Your task to perform on an android device: Empty the shopping cart on amazon.com. Search for "logitech g933" on amazon.com, select the first entry, add it to the cart, then select checkout. Image 0: 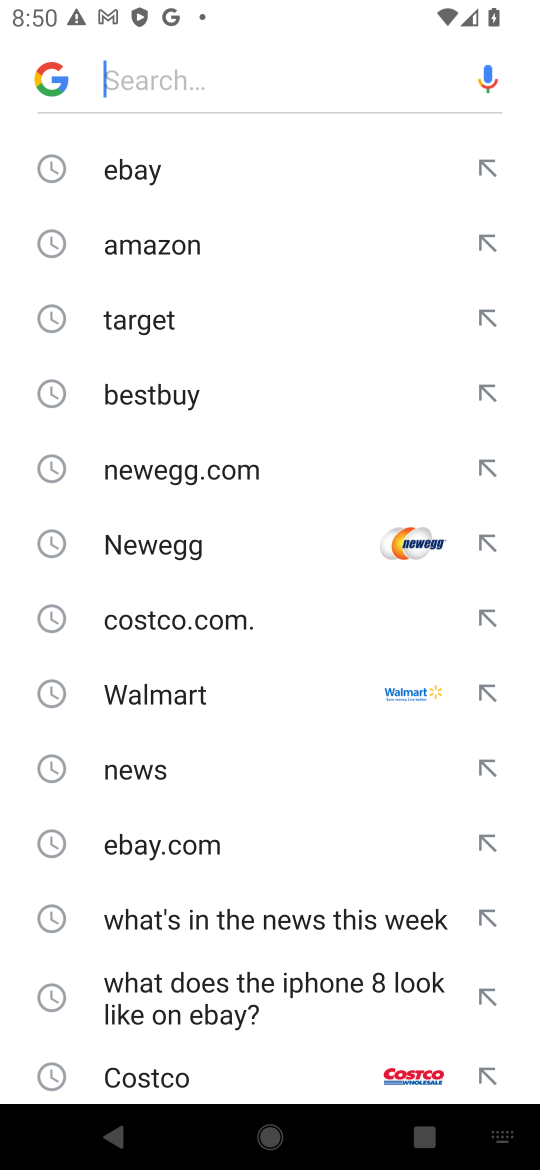
Step 0: type "amazon.com"
Your task to perform on an android device: Empty the shopping cart on amazon.com. Search for "logitech g933" on amazon.com, select the first entry, add it to the cart, then select checkout. Image 1: 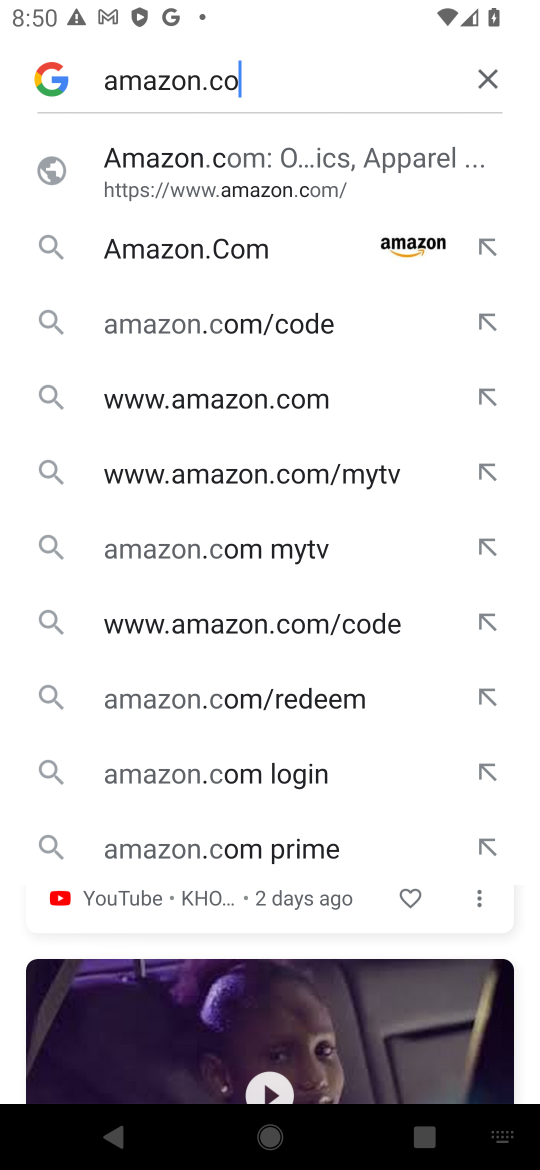
Step 1: type ""
Your task to perform on an android device: Empty the shopping cart on amazon.com. Search for "logitech g933" on amazon.com, select the first entry, add it to the cart, then select checkout. Image 2: 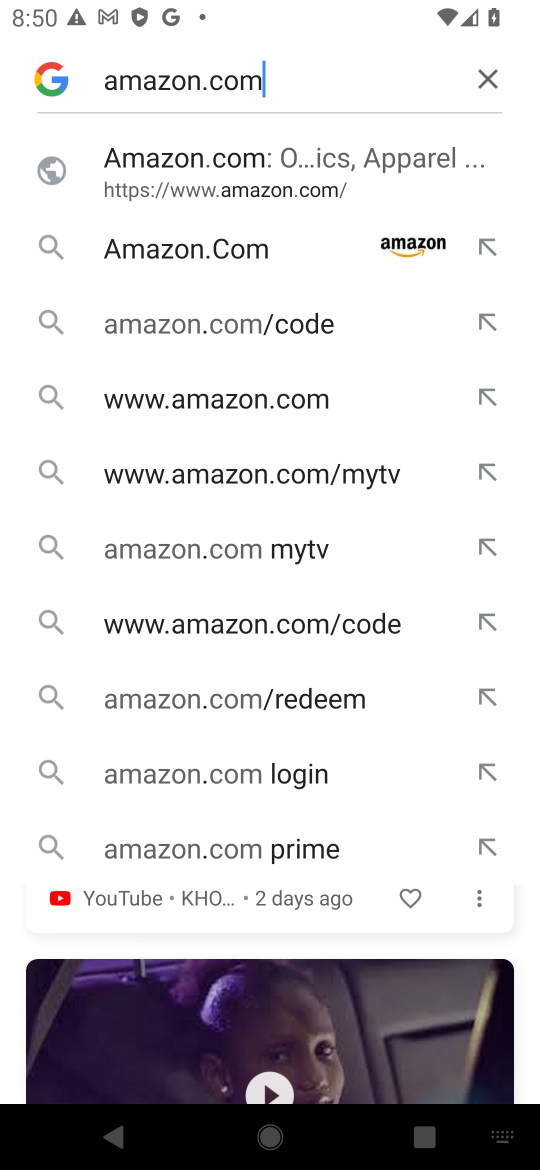
Step 2: click (238, 257)
Your task to perform on an android device: Empty the shopping cart on amazon.com. Search for "logitech g933" on amazon.com, select the first entry, add it to the cart, then select checkout. Image 3: 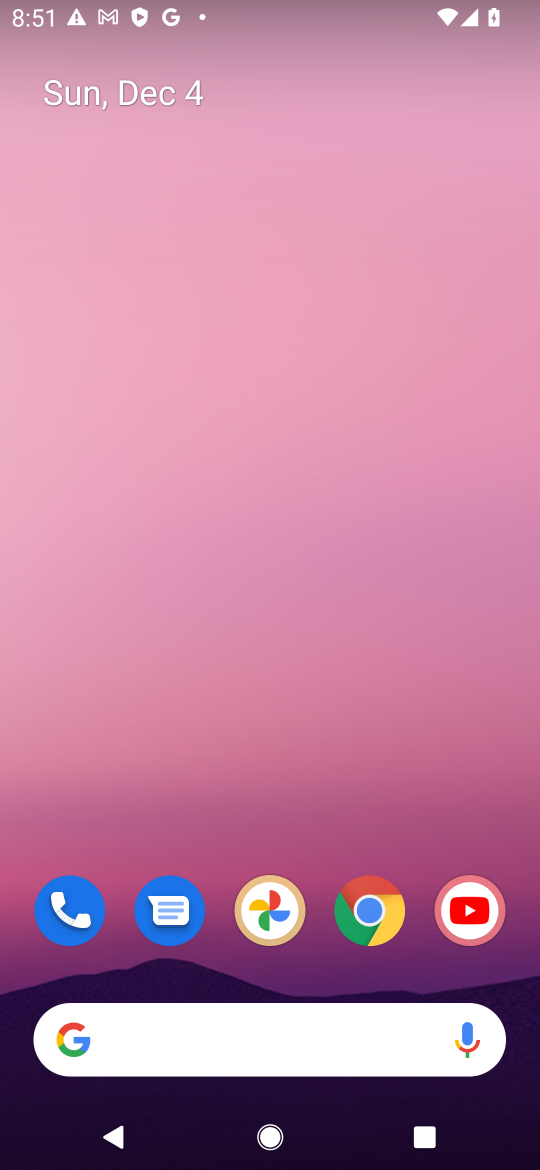
Step 3: drag from (333, 1092) to (260, 36)
Your task to perform on an android device: Empty the shopping cart on amazon.com. Search for "logitech g933" on amazon.com, select the first entry, add it to the cart, then select checkout. Image 4: 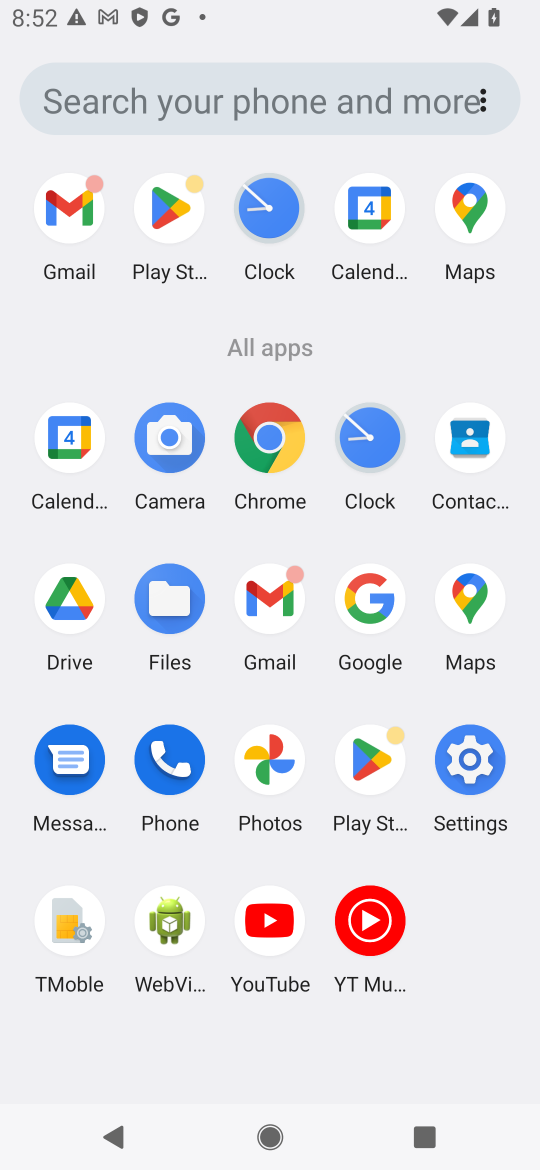
Step 4: click (278, 436)
Your task to perform on an android device: Empty the shopping cart on amazon.com. Search for "logitech g933" on amazon.com, select the first entry, add it to the cart, then select checkout. Image 5: 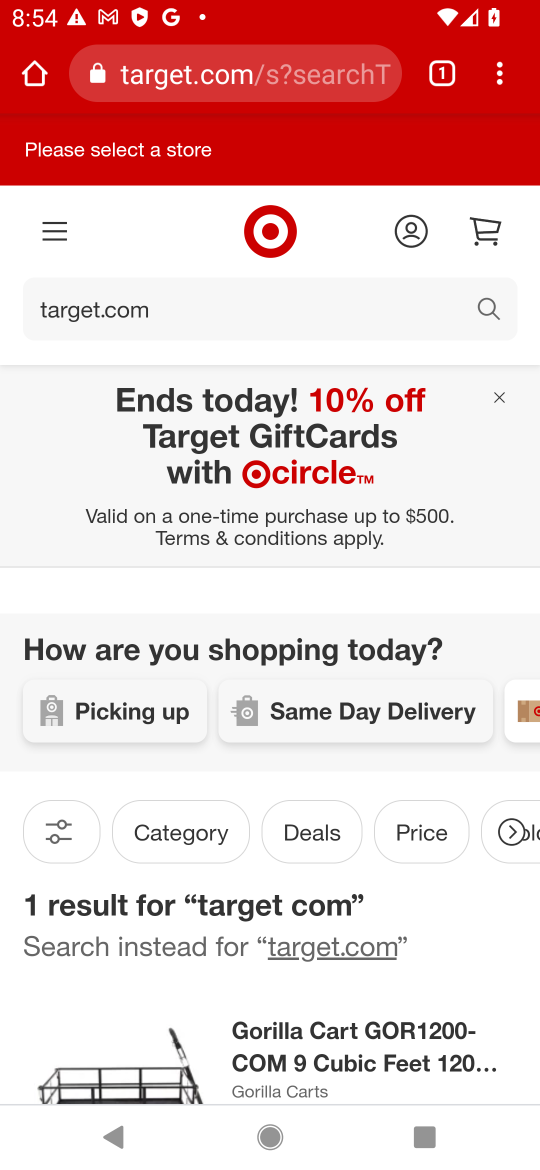
Step 5: click (484, 223)
Your task to perform on an android device: Empty the shopping cart on amazon.com. Search for "logitech g933" on amazon.com, select the first entry, add it to the cart, then select checkout. Image 6: 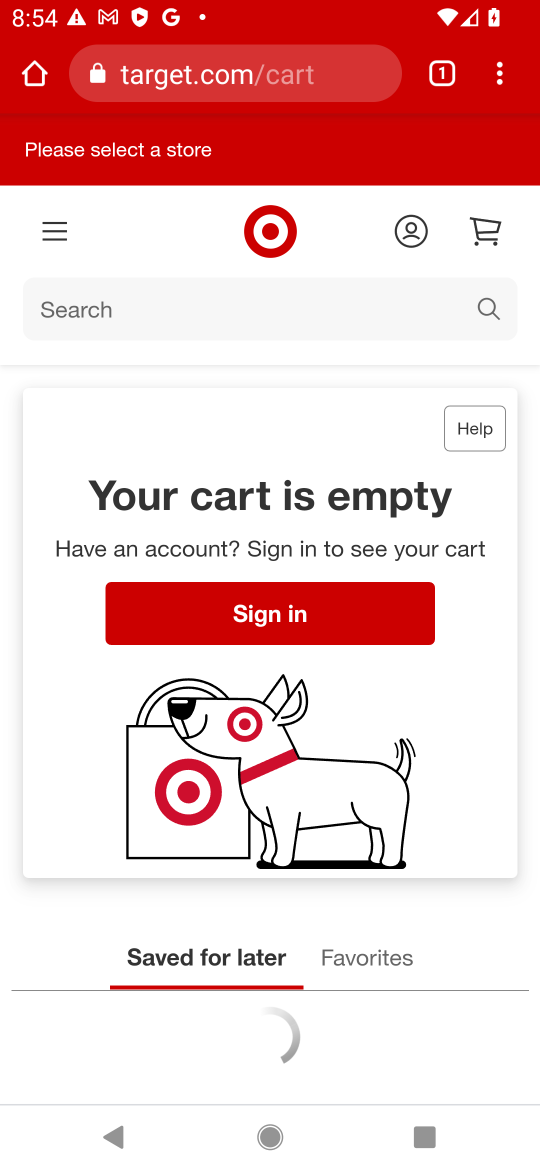
Step 6: click (422, 308)
Your task to perform on an android device: Empty the shopping cart on amazon.com. Search for "logitech g933" on amazon.com, select the first entry, add it to the cart, then select checkout. Image 7: 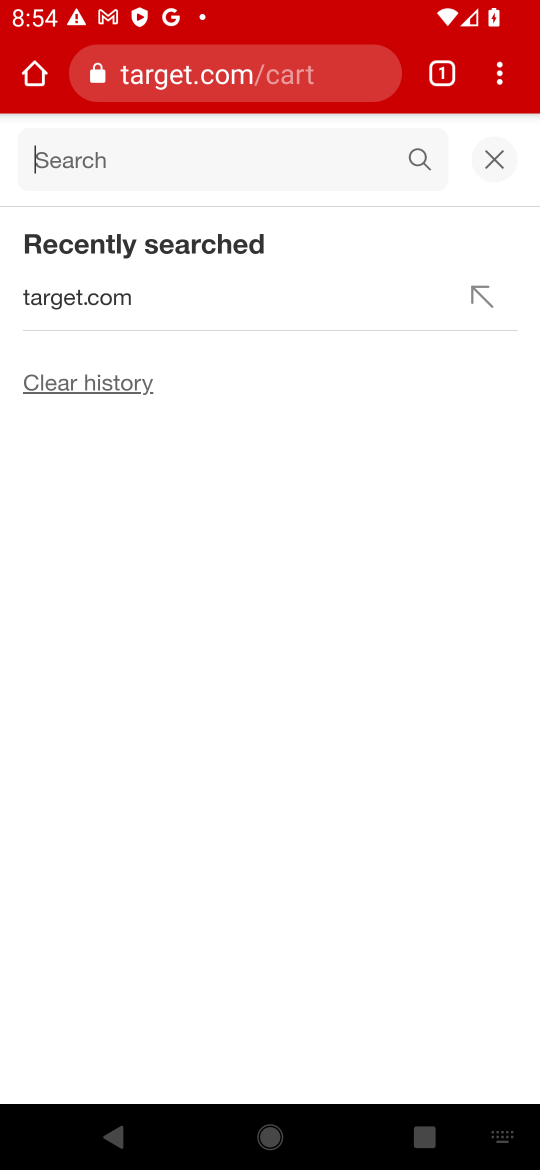
Step 7: type "logitech g933""
Your task to perform on an android device: Empty the shopping cart on amazon.com. Search for "logitech g933" on amazon.com, select the first entry, add it to the cart, then select checkout. Image 8: 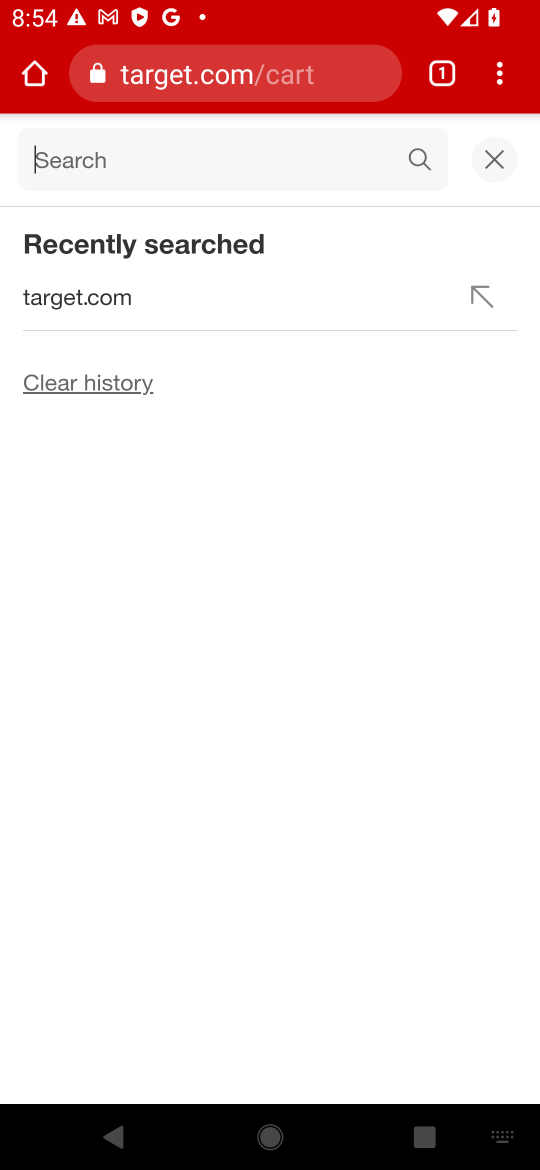
Step 8: type ""
Your task to perform on an android device: Empty the shopping cart on amazon.com. Search for "logitech g933" on amazon.com, select the first entry, add it to the cart, then select checkout. Image 9: 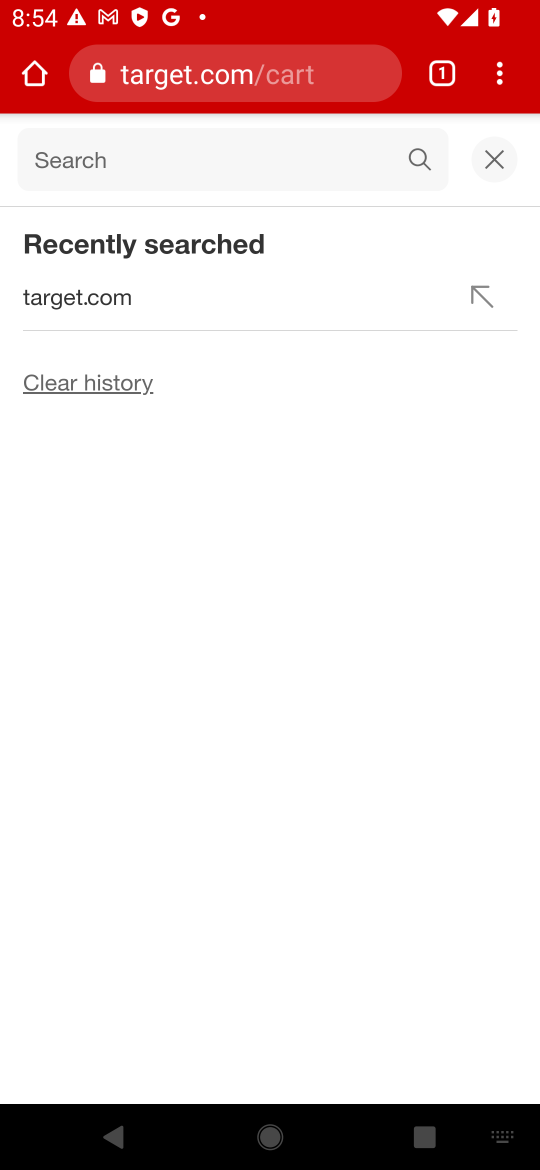
Step 9: click (171, 150)
Your task to perform on an android device: Empty the shopping cart on amazon.com. Search for "logitech g933" on amazon.com, select the first entry, add it to the cart, then select checkout. Image 10: 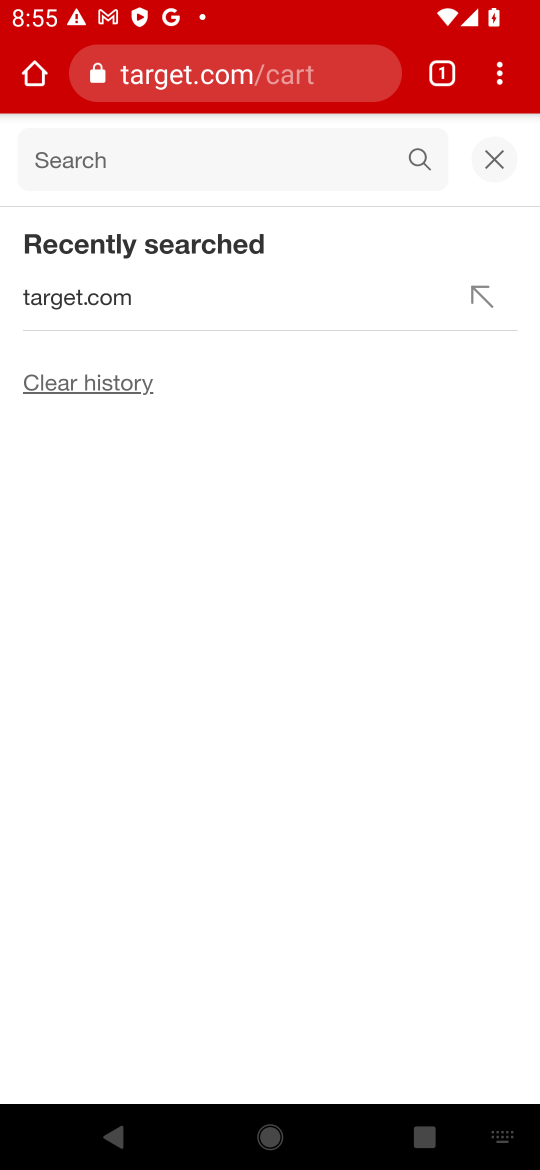
Step 10: type "logitech g933""
Your task to perform on an android device: Empty the shopping cart on amazon.com. Search for "logitech g933" on amazon.com, select the first entry, add it to the cart, then select checkout. Image 11: 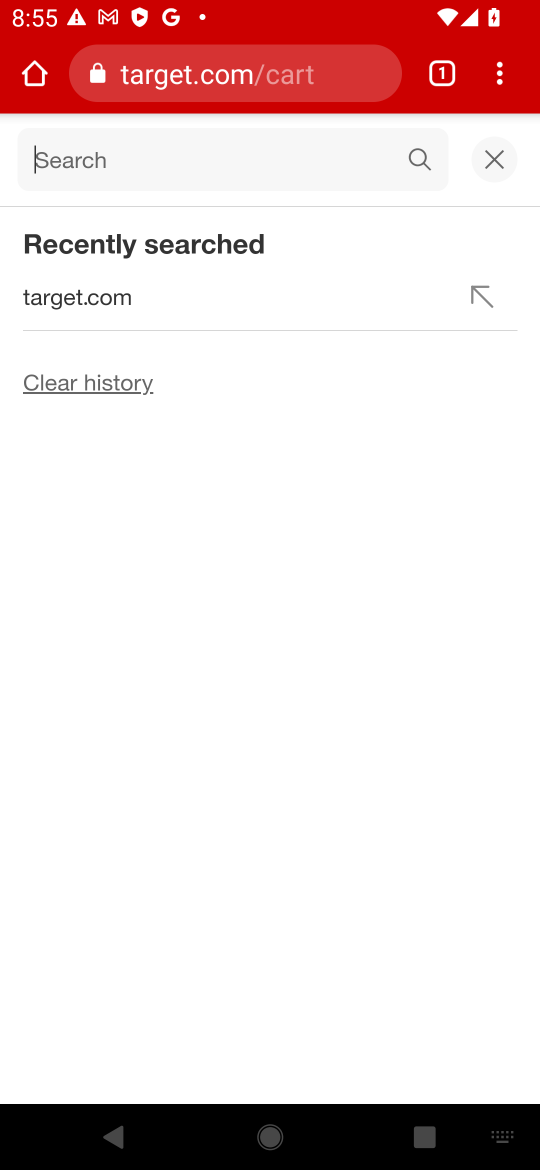
Step 11: type ""
Your task to perform on an android device: Empty the shopping cart on amazon.com. Search for "logitech g933" on amazon.com, select the first entry, add it to the cart, then select checkout. Image 12: 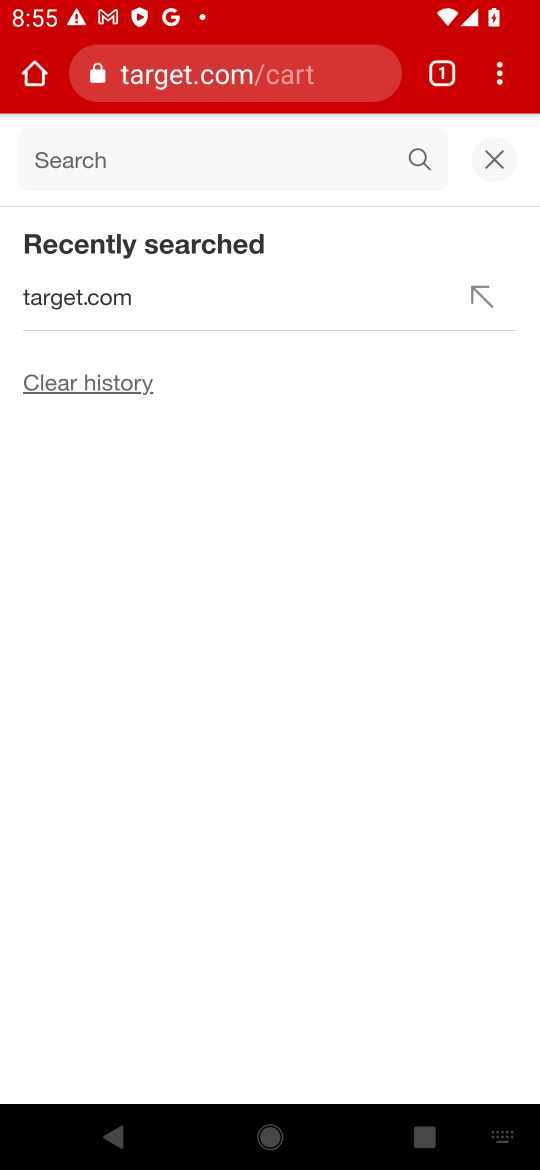
Step 12: click (268, 152)
Your task to perform on an android device: Empty the shopping cart on amazon.com. Search for "logitech g933" on amazon.com, select the first entry, add it to the cart, then select checkout. Image 13: 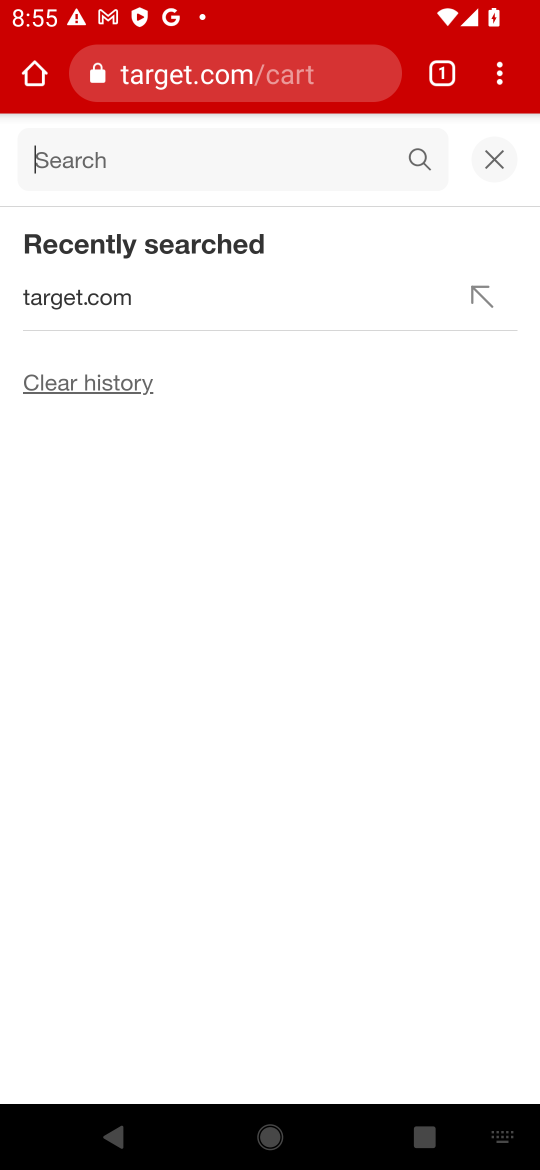
Step 13: click (268, 152)
Your task to perform on an android device: Empty the shopping cart on amazon.com. Search for "logitech g933" on amazon.com, select the first entry, add it to the cart, then select checkout. Image 14: 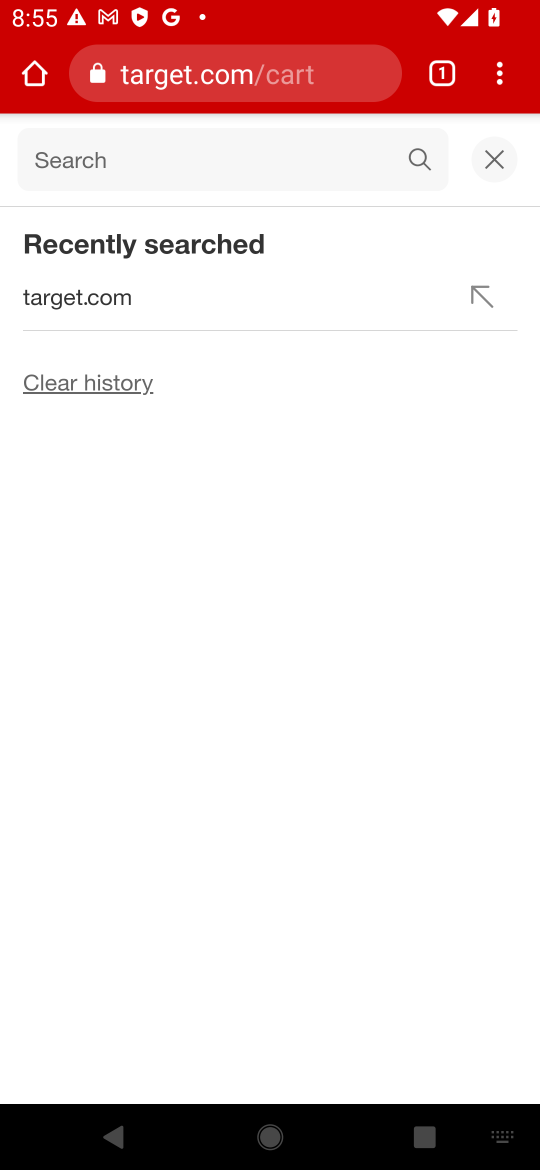
Step 14: task complete